Your task to perform on an android device: turn notification dots on Image 0: 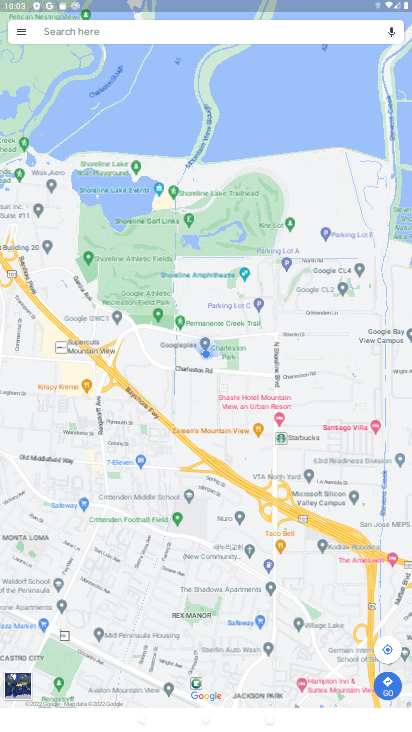
Step 0: press home button
Your task to perform on an android device: turn notification dots on Image 1: 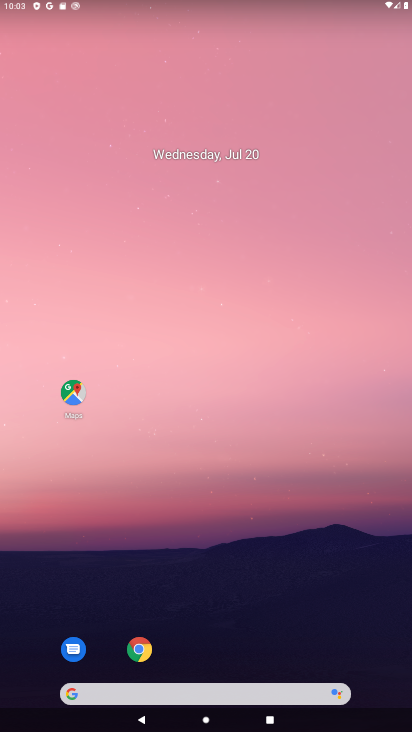
Step 1: drag from (272, 639) to (217, 191)
Your task to perform on an android device: turn notification dots on Image 2: 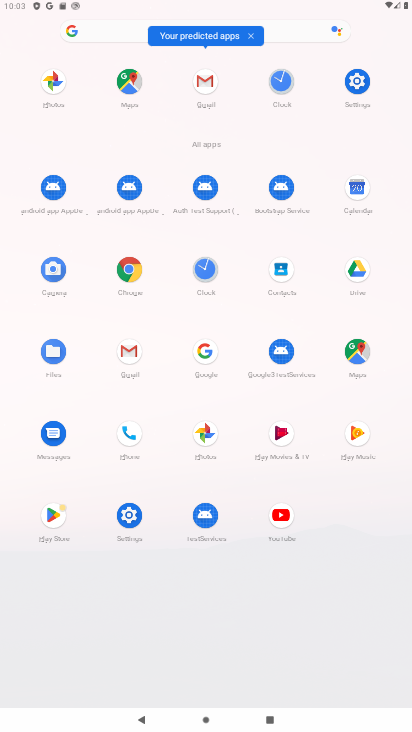
Step 2: click (366, 91)
Your task to perform on an android device: turn notification dots on Image 3: 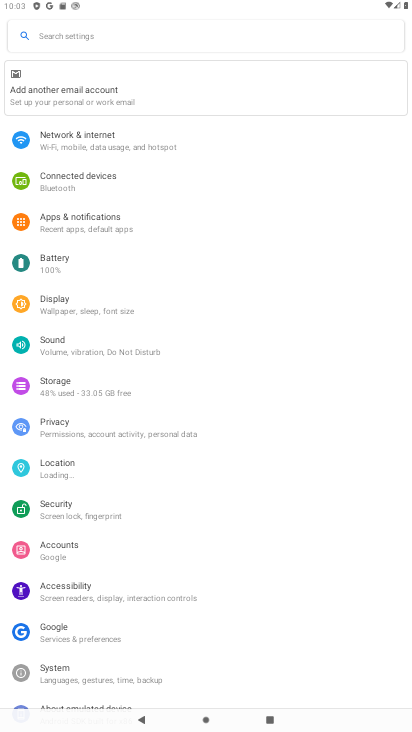
Step 3: click (106, 214)
Your task to perform on an android device: turn notification dots on Image 4: 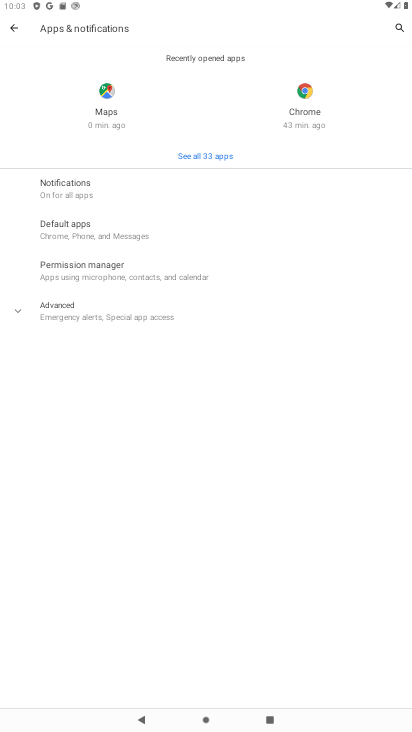
Step 4: click (172, 185)
Your task to perform on an android device: turn notification dots on Image 5: 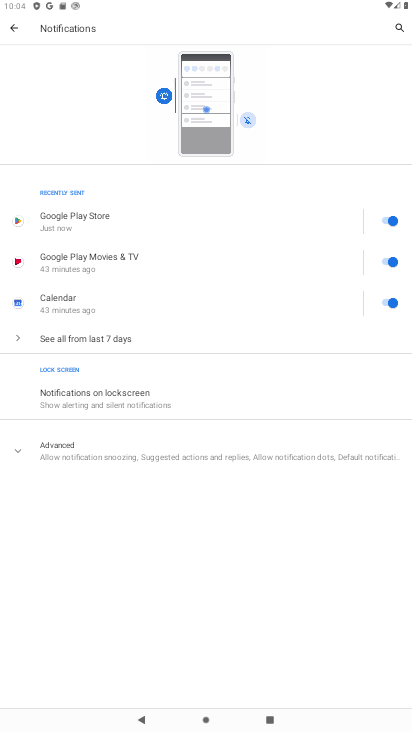
Step 5: click (187, 473)
Your task to perform on an android device: turn notification dots on Image 6: 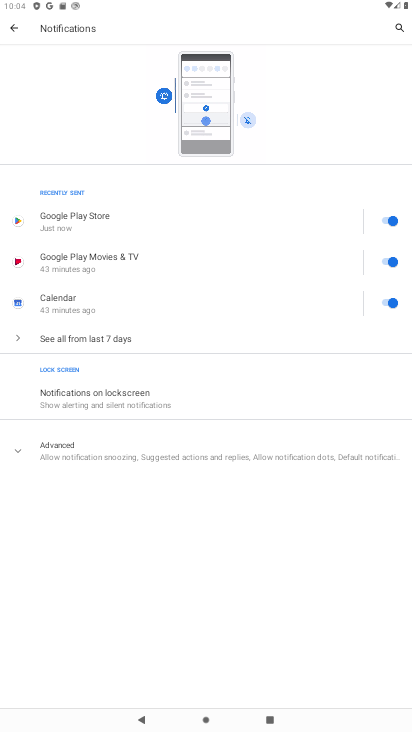
Step 6: click (190, 464)
Your task to perform on an android device: turn notification dots on Image 7: 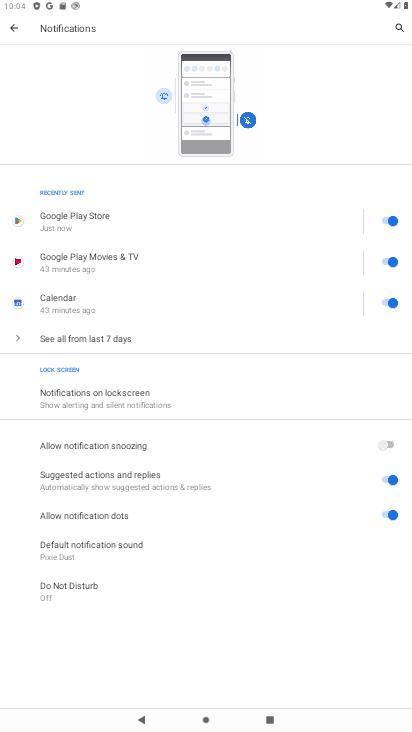
Step 7: task complete